Your task to perform on an android device: Go to Maps Image 0: 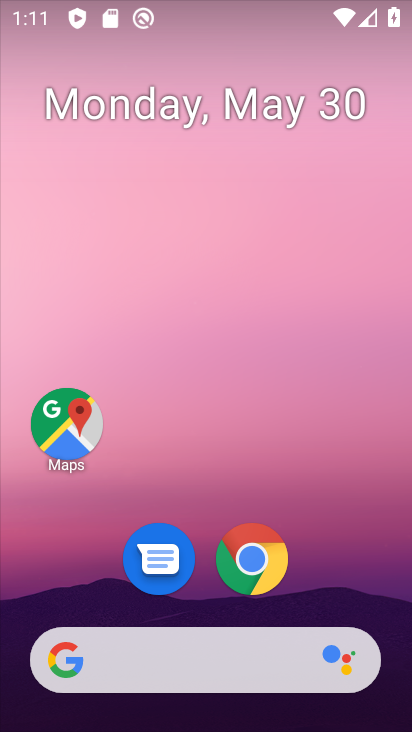
Step 0: drag from (333, 601) to (329, 3)
Your task to perform on an android device: Go to Maps Image 1: 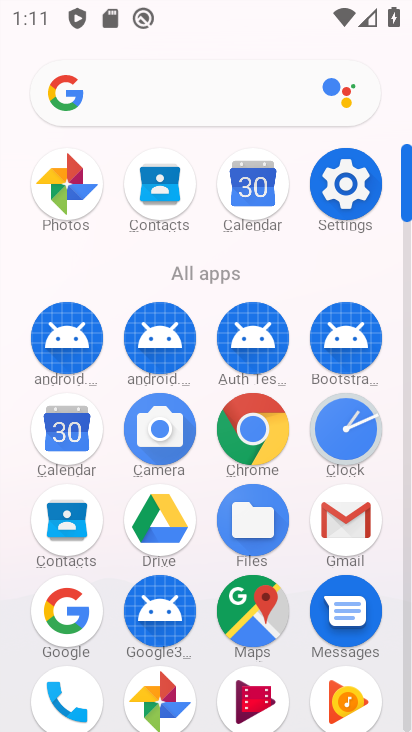
Step 1: click (254, 618)
Your task to perform on an android device: Go to Maps Image 2: 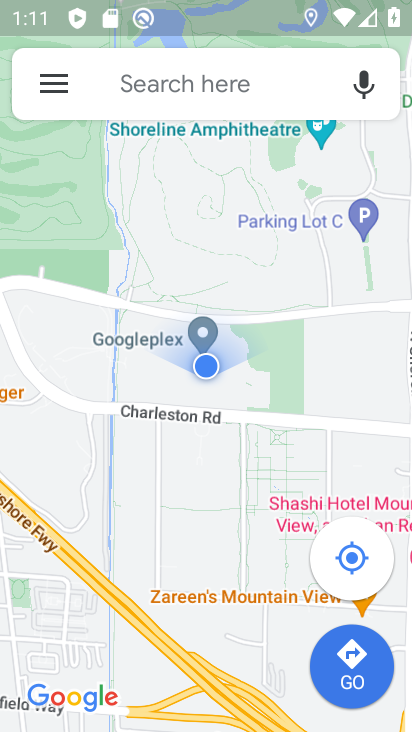
Step 2: task complete